Your task to perform on an android device: turn notification dots off Image 0: 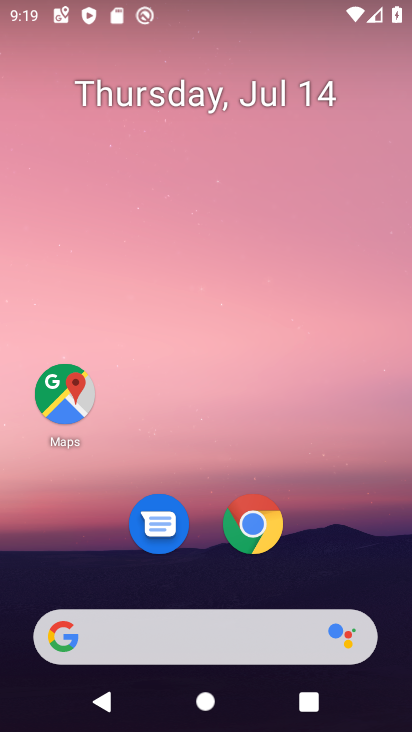
Step 0: drag from (308, 539) to (349, 13)
Your task to perform on an android device: turn notification dots off Image 1: 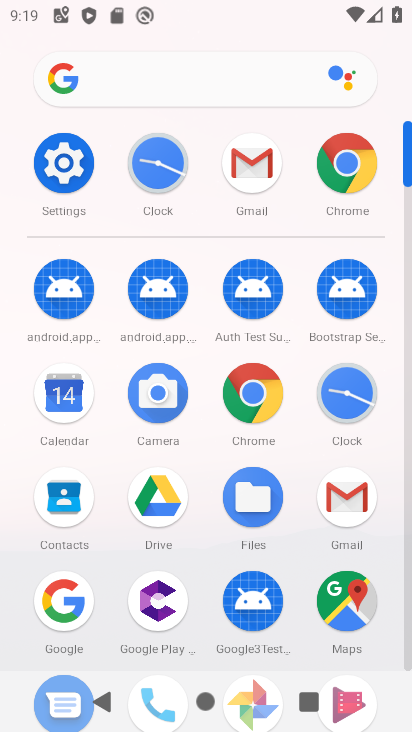
Step 1: click (79, 164)
Your task to perform on an android device: turn notification dots off Image 2: 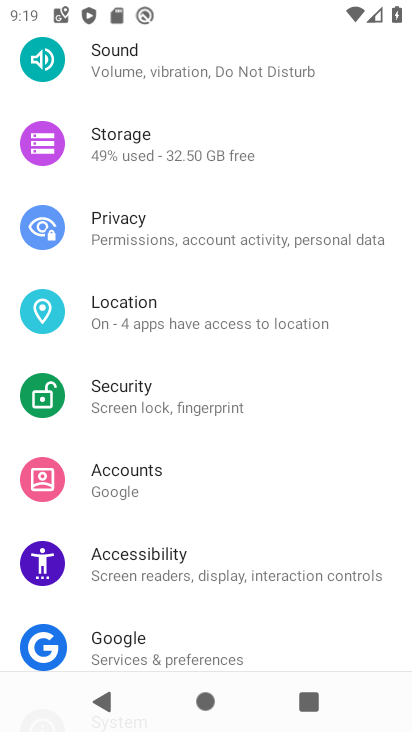
Step 2: drag from (206, 121) to (205, 549)
Your task to perform on an android device: turn notification dots off Image 3: 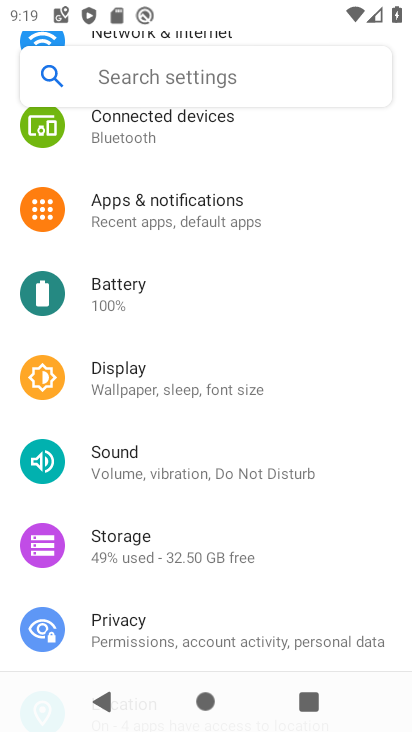
Step 3: click (229, 208)
Your task to perform on an android device: turn notification dots off Image 4: 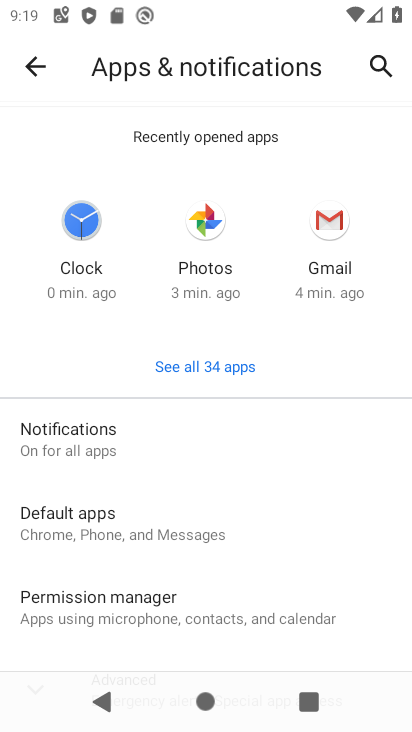
Step 4: click (100, 429)
Your task to perform on an android device: turn notification dots off Image 5: 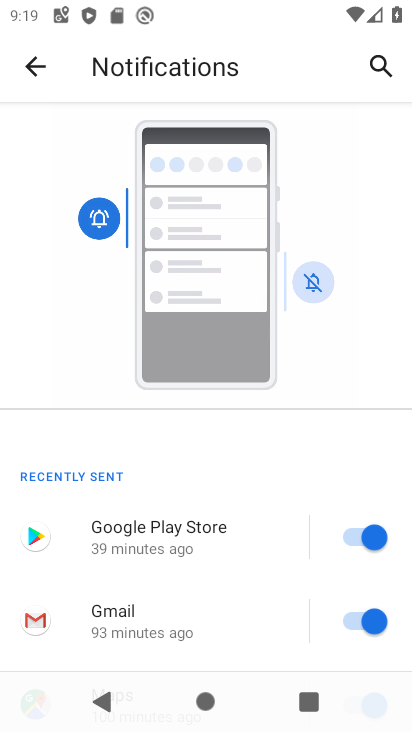
Step 5: drag from (231, 585) to (245, 214)
Your task to perform on an android device: turn notification dots off Image 6: 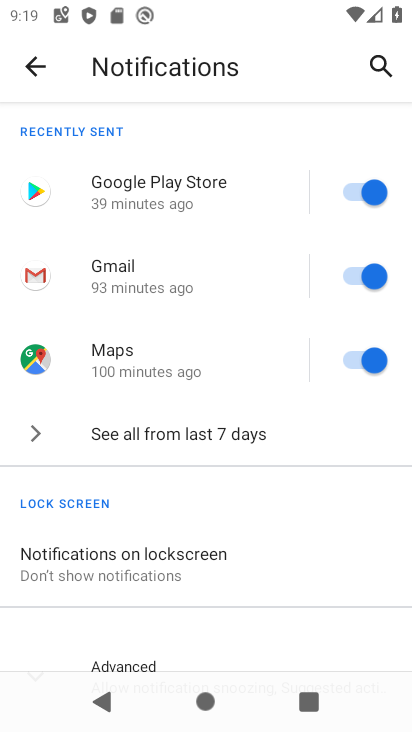
Step 6: drag from (237, 531) to (263, 188)
Your task to perform on an android device: turn notification dots off Image 7: 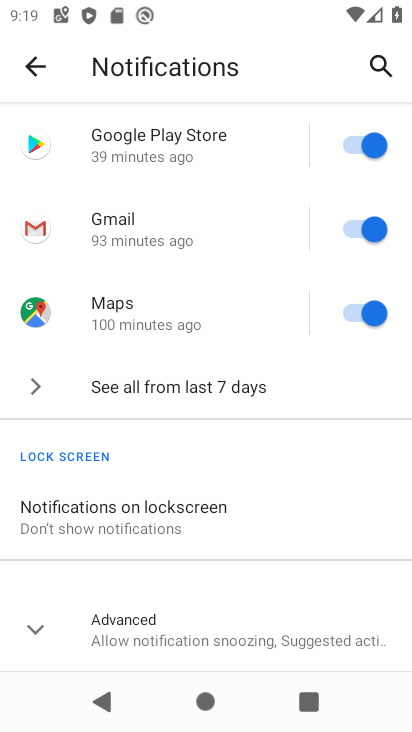
Step 7: click (34, 626)
Your task to perform on an android device: turn notification dots off Image 8: 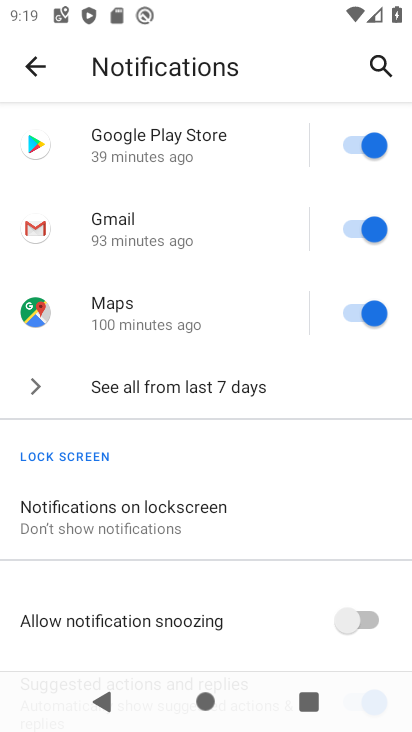
Step 8: task complete